Your task to perform on an android device: Go to wifi settings Image 0: 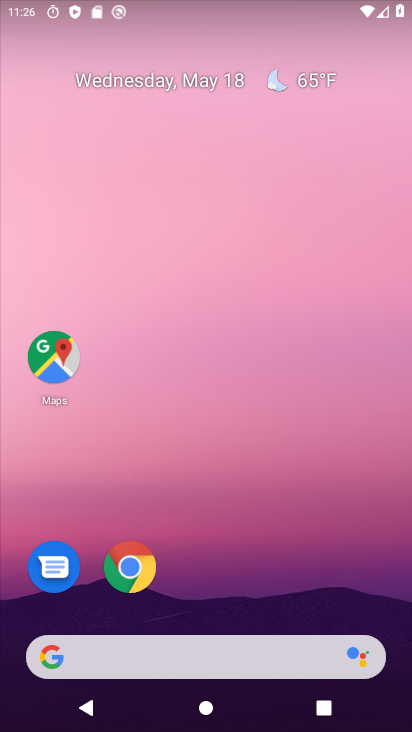
Step 0: drag from (215, 592) to (266, 127)
Your task to perform on an android device: Go to wifi settings Image 1: 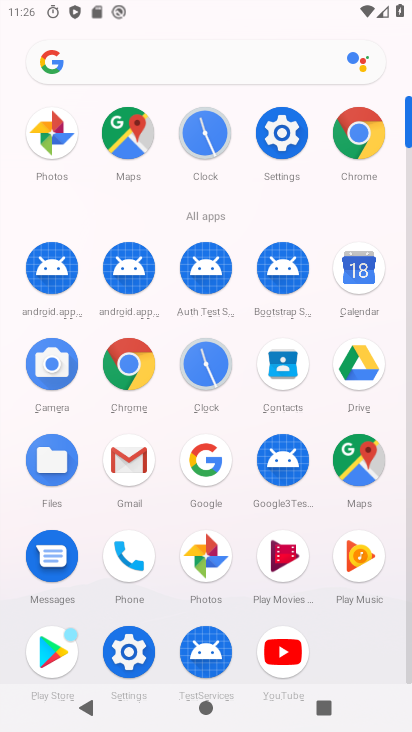
Step 1: click (289, 133)
Your task to perform on an android device: Go to wifi settings Image 2: 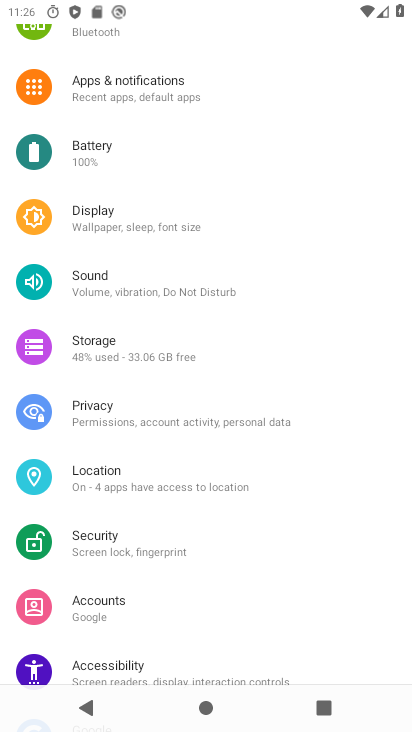
Step 2: drag from (225, 162) to (226, 474)
Your task to perform on an android device: Go to wifi settings Image 3: 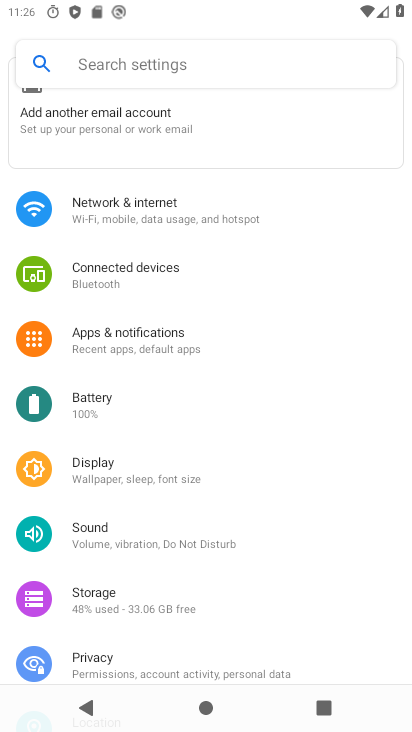
Step 3: click (221, 206)
Your task to perform on an android device: Go to wifi settings Image 4: 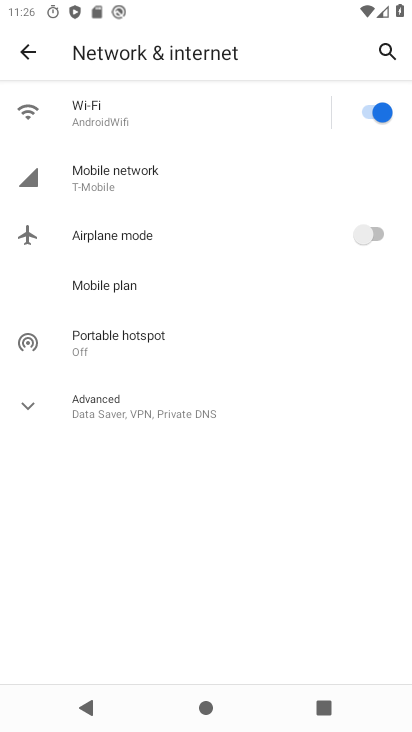
Step 4: click (112, 107)
Your task to perform on an android device: Go to wifi settings Image 5: 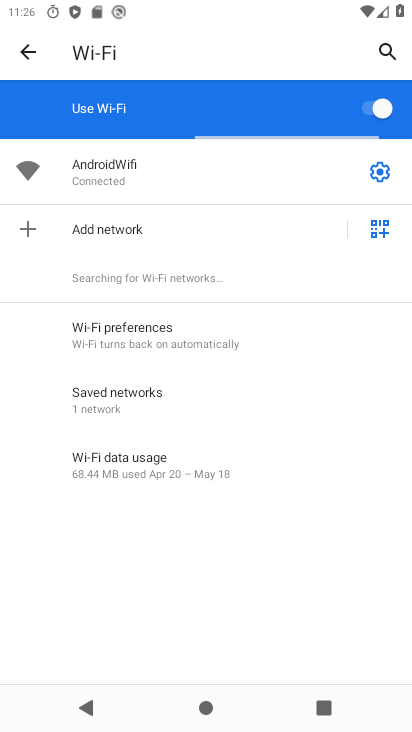
Step 5: task complete